Your task to perform on an android device: Open settings Image 0: 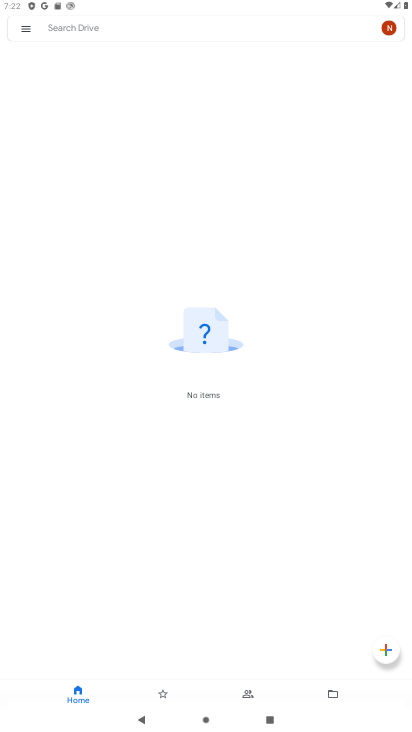
Step 0: press home button
Your task to perform on an android device: Open settings Image 1: 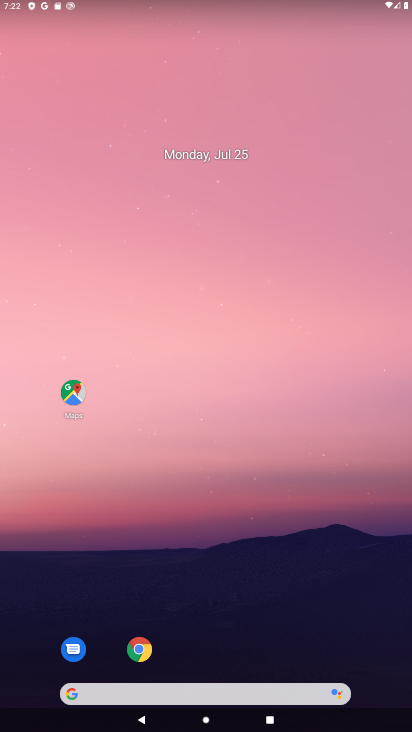
Step 1: drag from (227, 651) to (380, 115)
Your task to perform on an android device: Open settings Image 2: 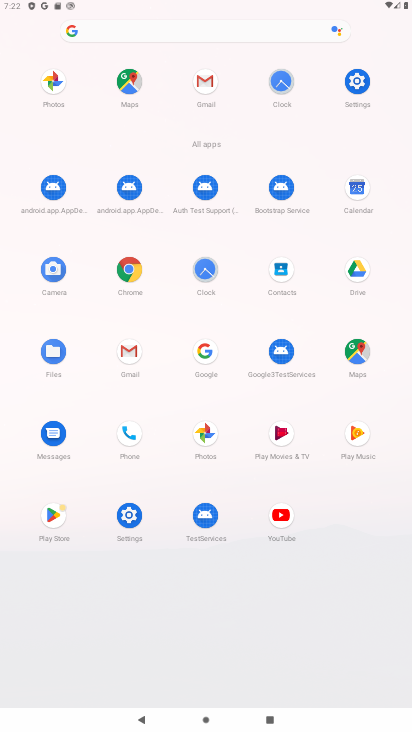
Step 2: click (127, 514)
Your task to perform on an android device: Open settings Image 3: 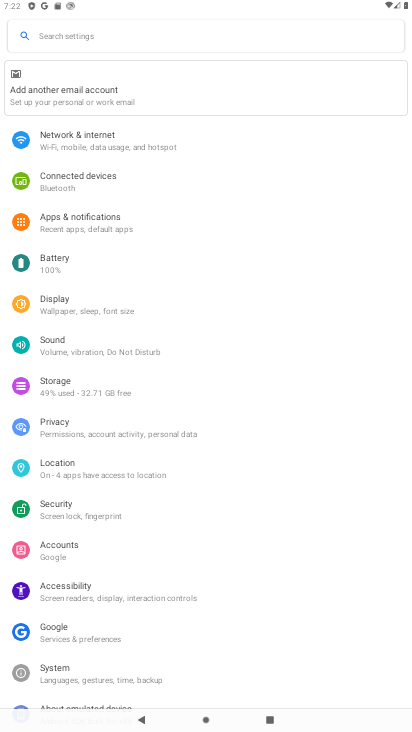
Step 3: task complete